Your task to perform on an android device: turn pop-ups on in chrome Image 0: 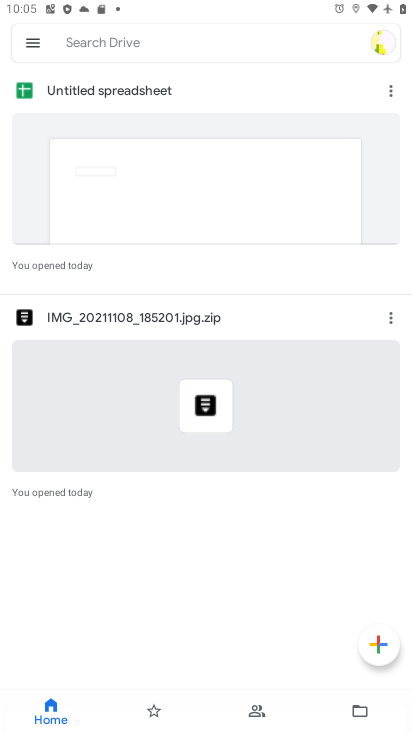
Step 0: press home button
Your task to perform on an android device: turn pop-ups on in chrome Image 1: 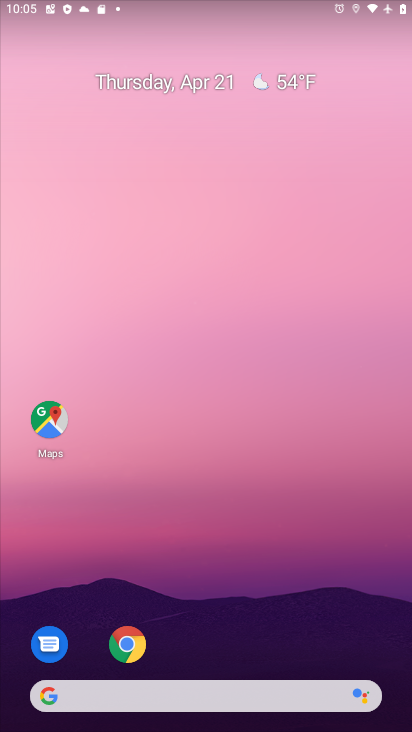
Step 1: click (137, 640)
Your task to perform on an android device: turn pop-ups on in chrome Image 2: 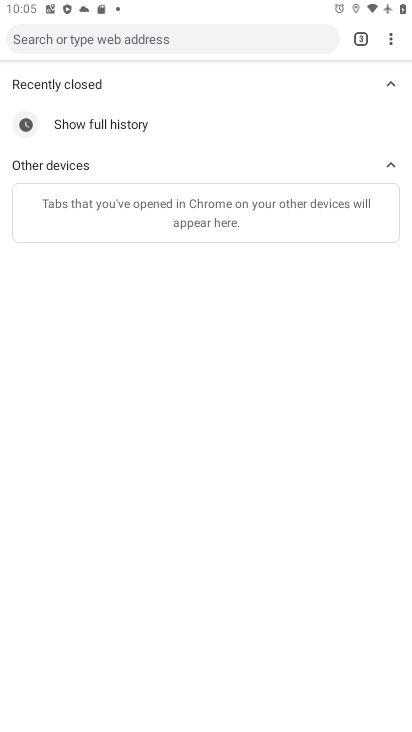
Step 2: drag from (389, 38) to (275, 380)
Your task to perform on an android device: turn pop-ups on in chrome Image 3: 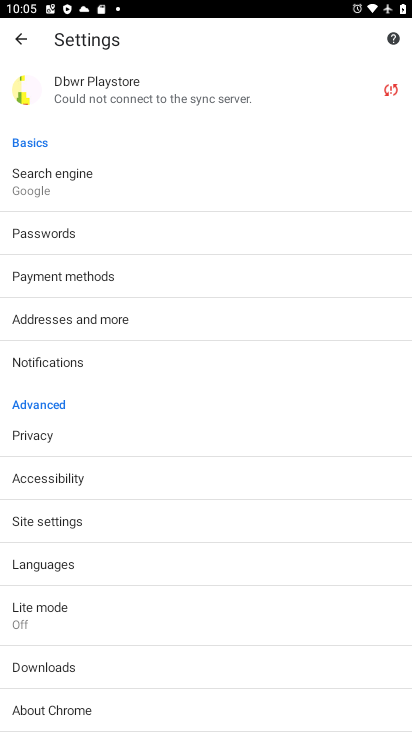
Step 3: click (61, 520)
Your task to perform on an android device: turn pop-ups on in chrome Image 4: 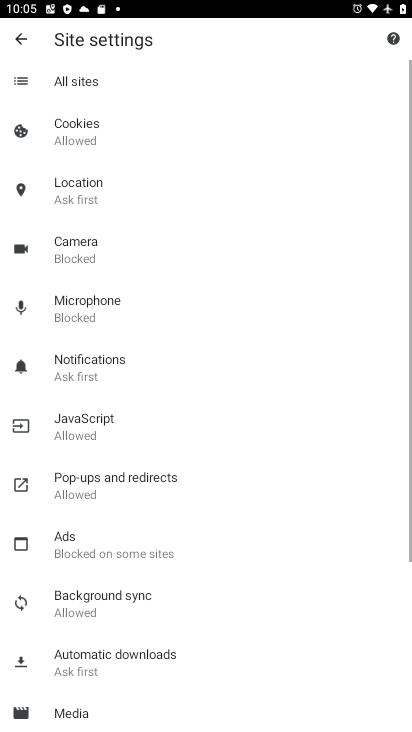
Step 4: click (92, 489)
Your task to perform on an android device: turn pop-ups on in chrome Image 5: 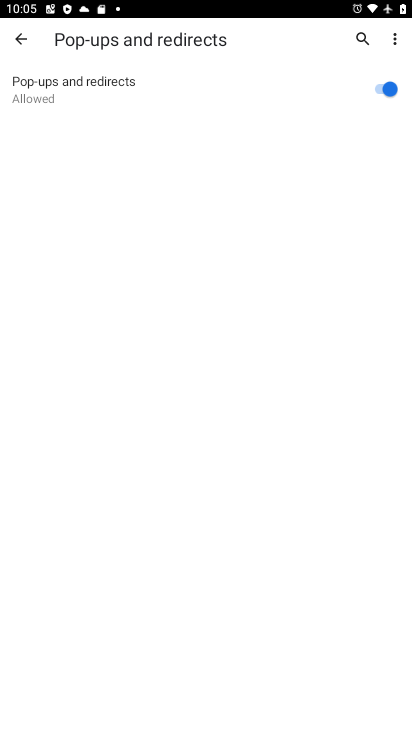
Step 5: task complete